Your task to perform on an android device: What's the weather today? Image 0: 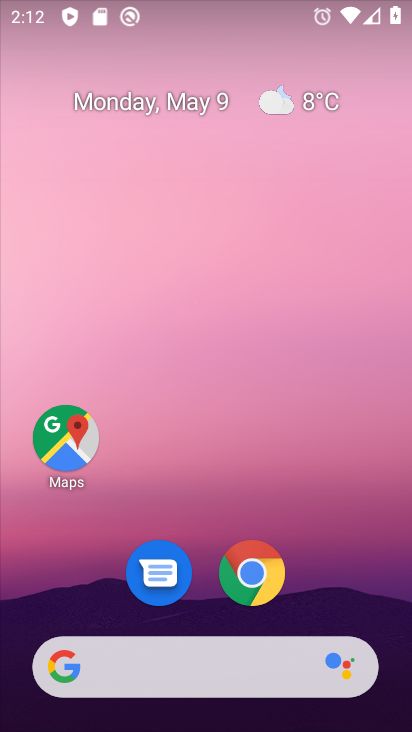
Step 0: press home button
Your task to perform on an android device: What's the weather today? Image 1: 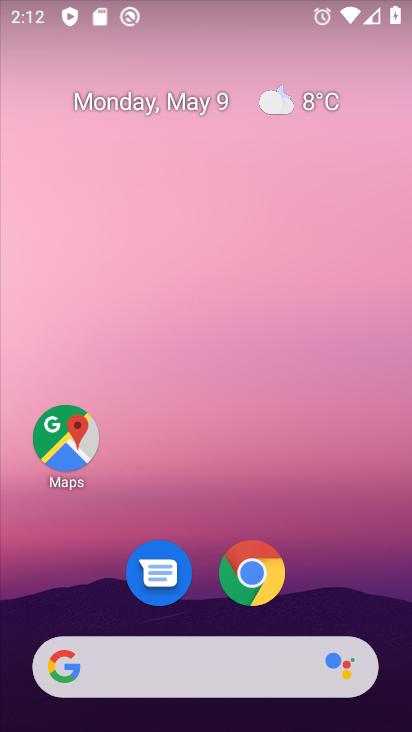
Step 1: click (69, 665)
Your task to perform on an android device: What's the weather today? Image 2: 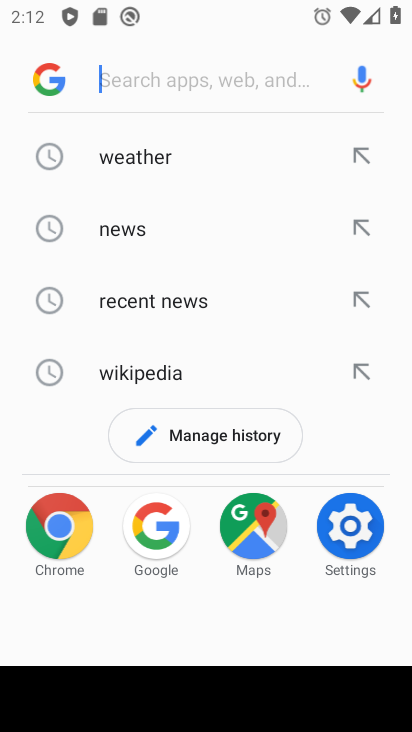
Step 2: click (168, 157)
Your task to perform on an android device: What's the weather today? Image 3: 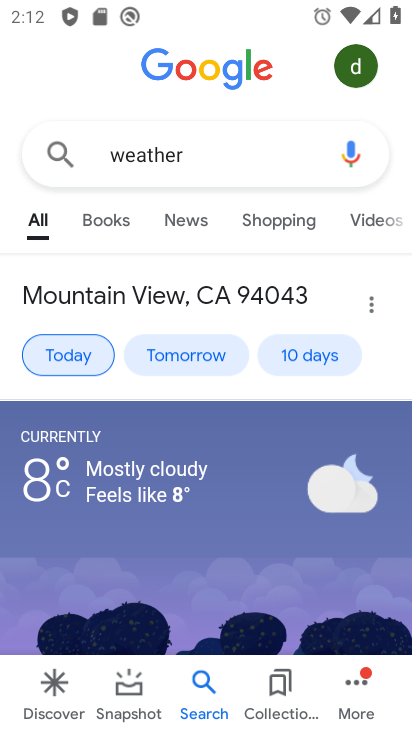
Step 3: task complete